Your task to perform on an android device: turn off notifications in google photos Image 0: 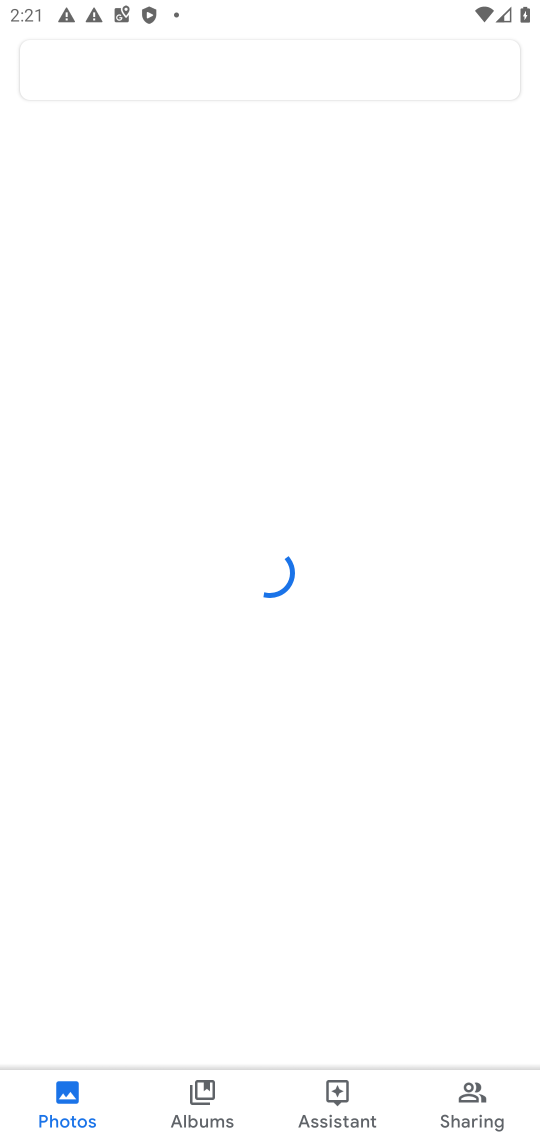
Step 0: press back button
Your task to perform on an android device: turn off notifications in google photos Image 1: 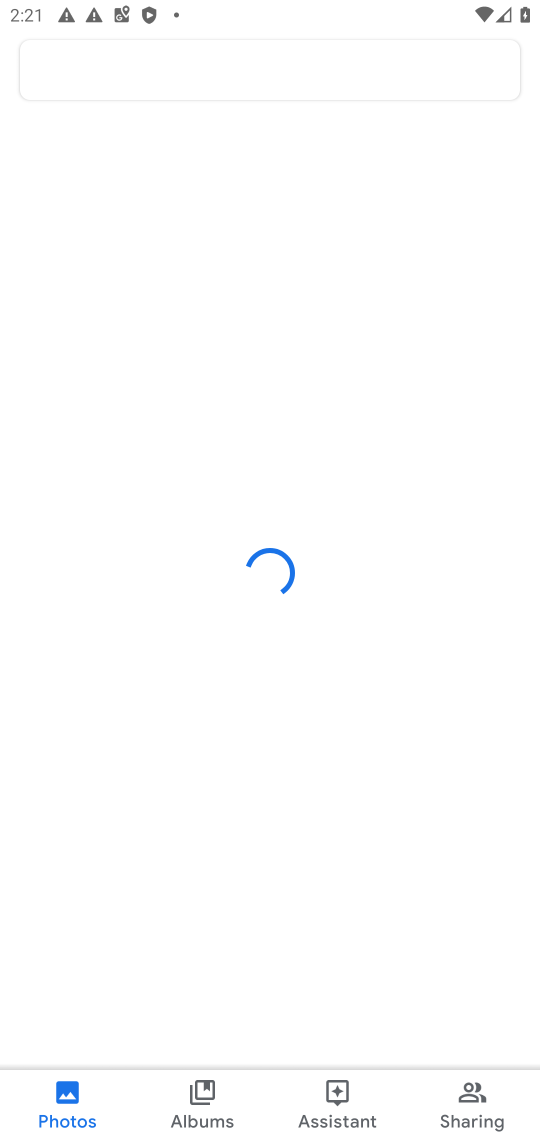
Step 1: press home button
Your task to perform on an android device: turn off notifications in google photos Image 2: 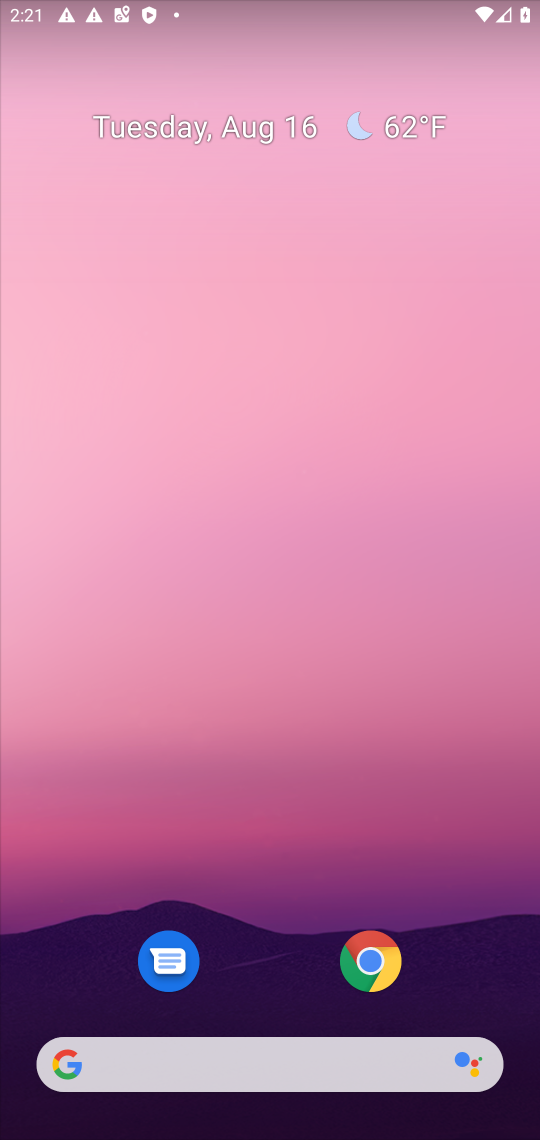
Step 2: drag from (474, 905) to (193, 8)
Your task to perform on an android device: turn off notifications in google photos Image 3: 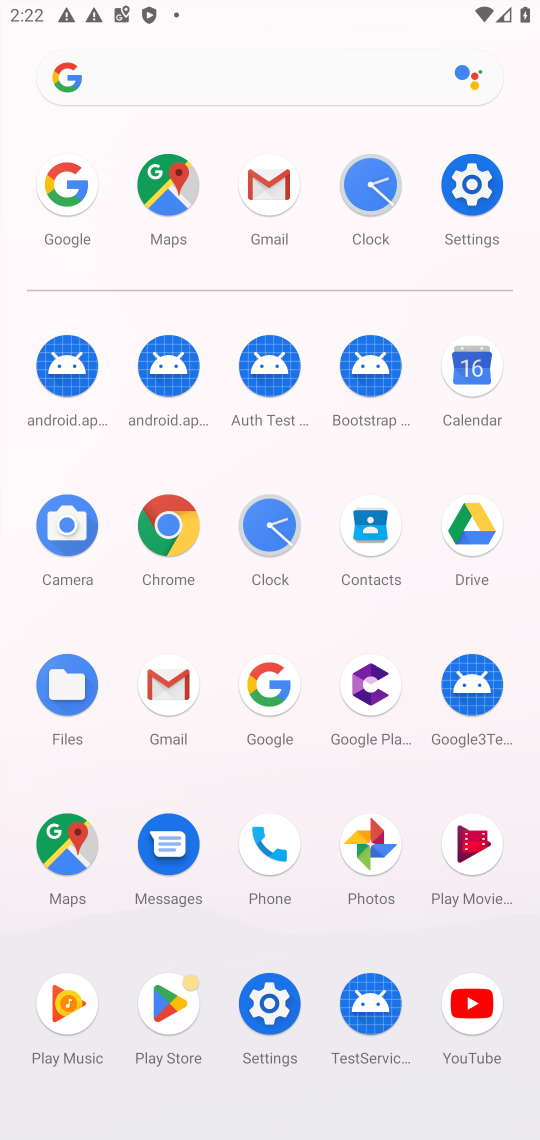
Step 3: click (367, 842)
Your task to perform on an android device: turn off notifications in google photos Image 4: 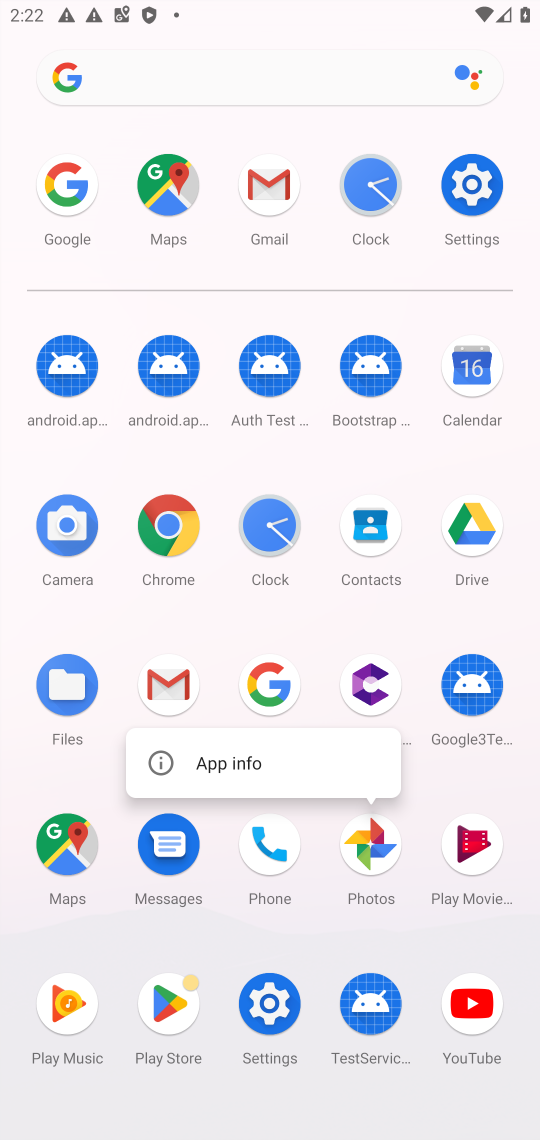
Step 4: click (367, 840)
Your task to perform on an android device: turn off notifications in google photos Image 5: 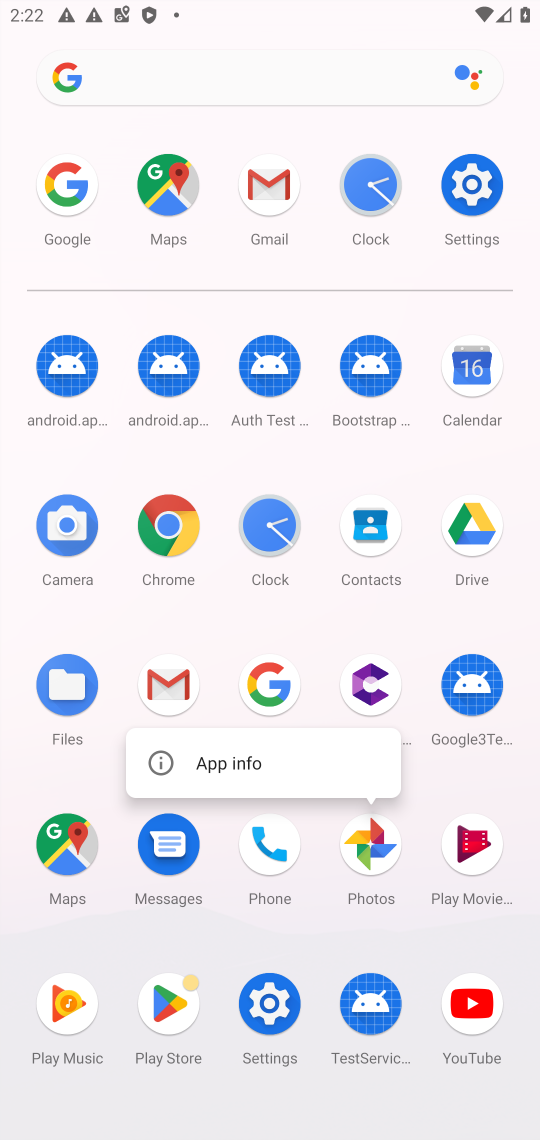
Step 5: click (367, 840)
Your task to perform on an android device: turn off notifications in google photos Image 6: 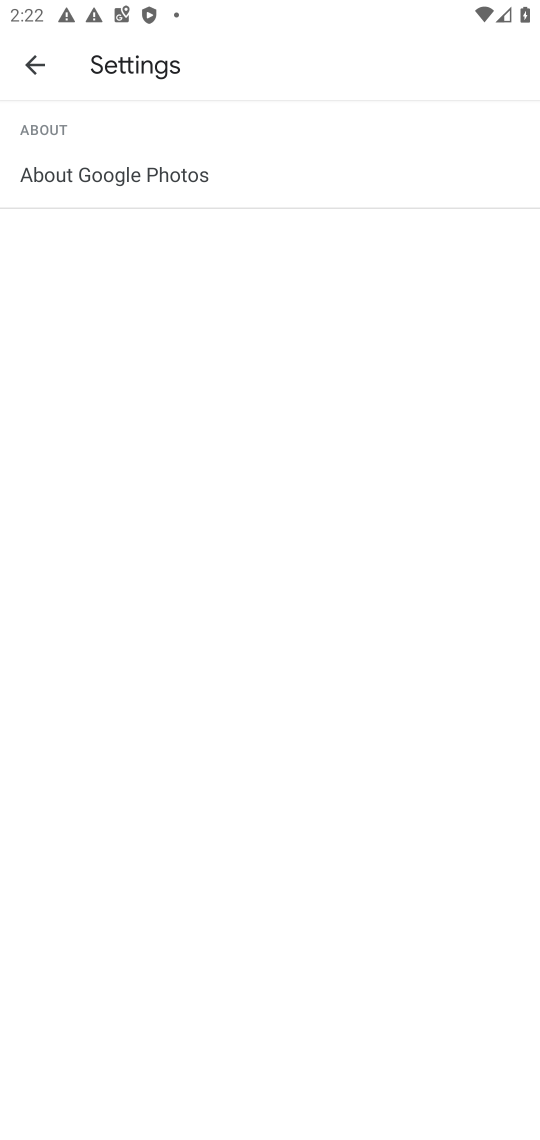
Step 6: task complete